Your task to perform on an android device: change the clock style Image 0: 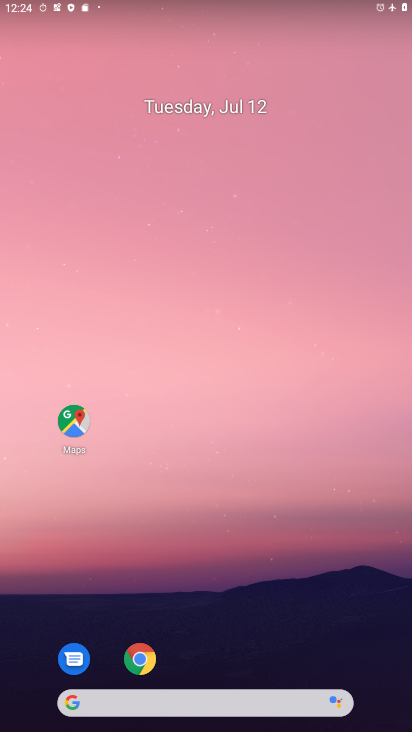
Step 0: click (260, 41)
Your task to perform on an android device: change the clock style Image 1: 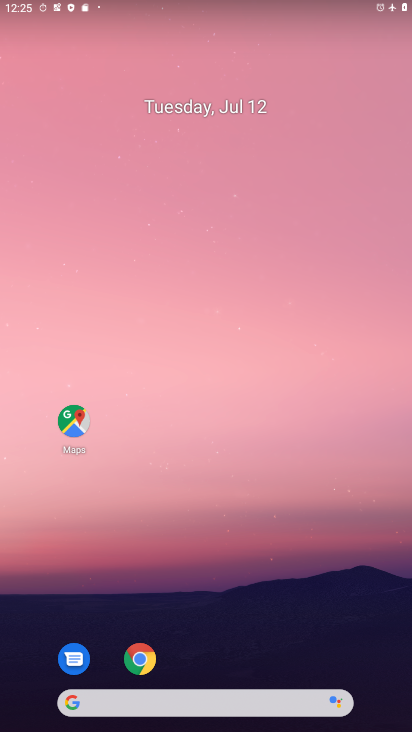
Step 1: drag from (244, 648) to (225, 6)
Your task to perform on an android device: change the clock style Image 2: 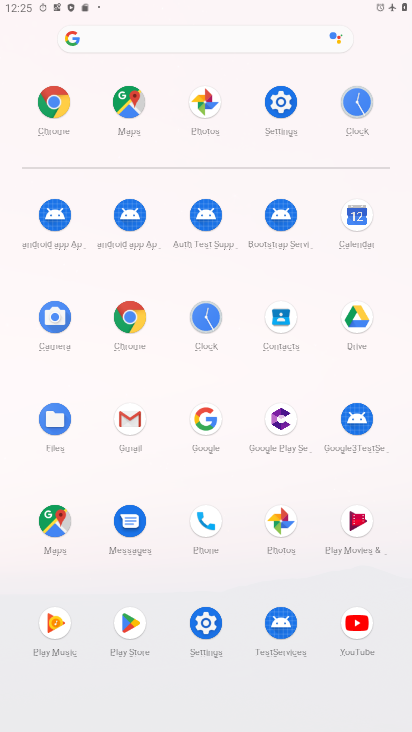
Step 2: click (202, 319)
Your task to perform on an android device: change the clock style Image 3: 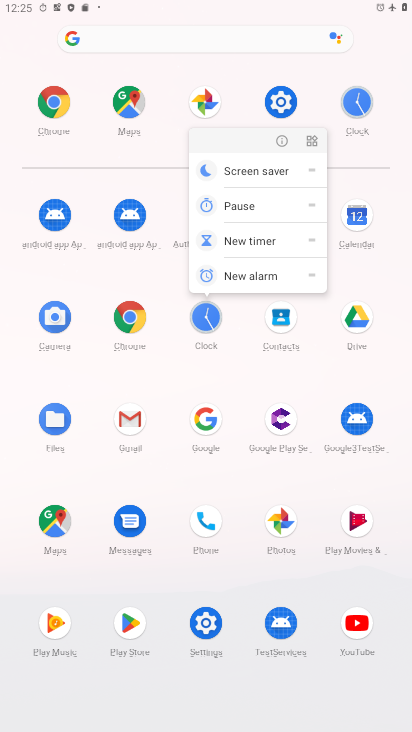
Step 3: click (274, 138)
Your task to perform on an android device: change the clock style Image 4: 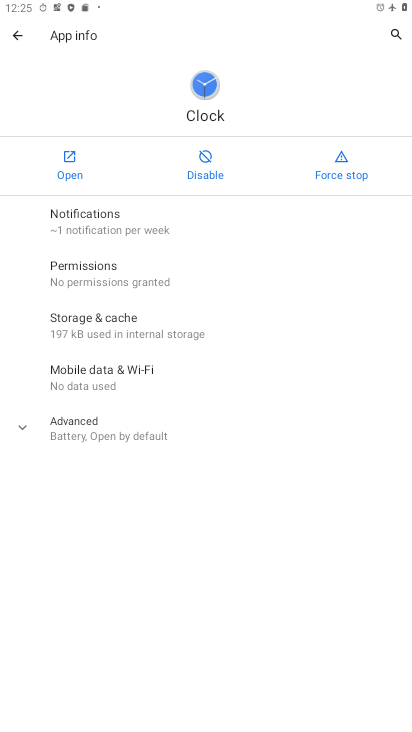
Step 4: click (73, 151)
Your task to perform on an android device: change the clock style Image 5: 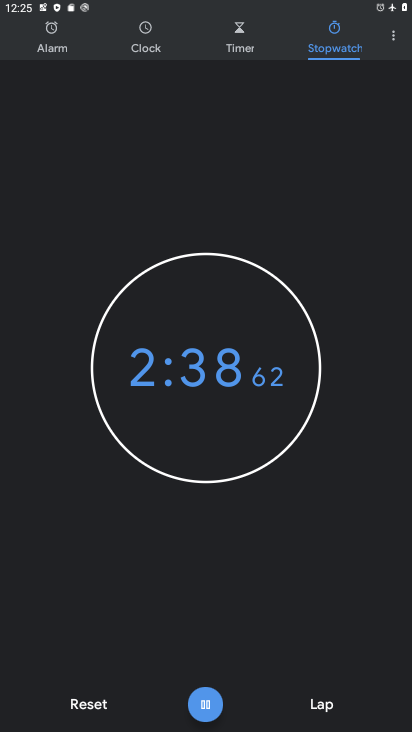
Step 5: drag from (303, 447) to (320, 218)
Your task to perform on an android device: change the clock style Image 6: 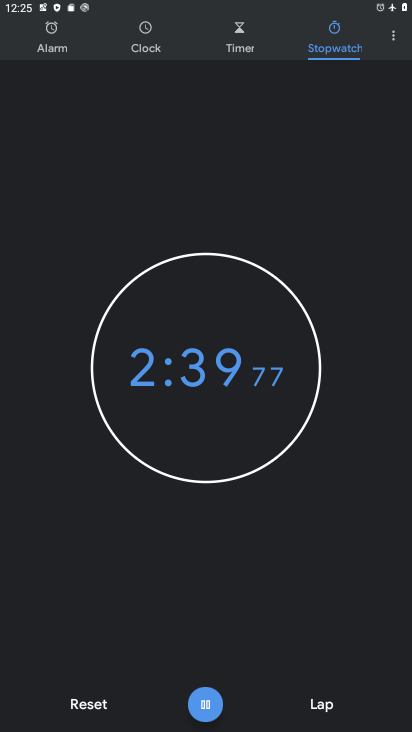
Step 6: click (95, 695)
Your task to perform on an android device: change the clock style Image 7: 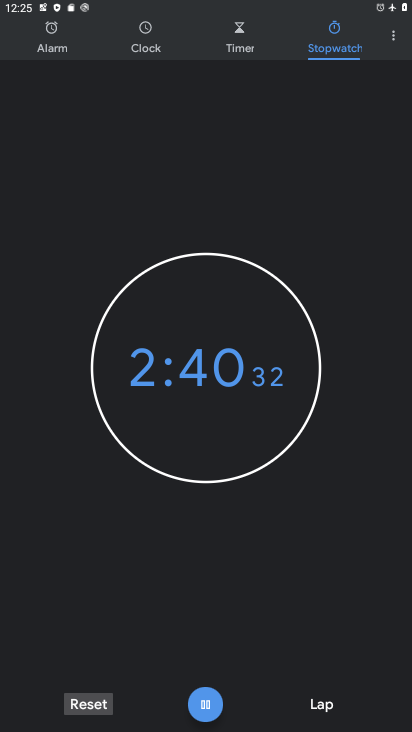
Step 7: click (97, 699)
Your task to perform on an android device: change the clock style Image 8: 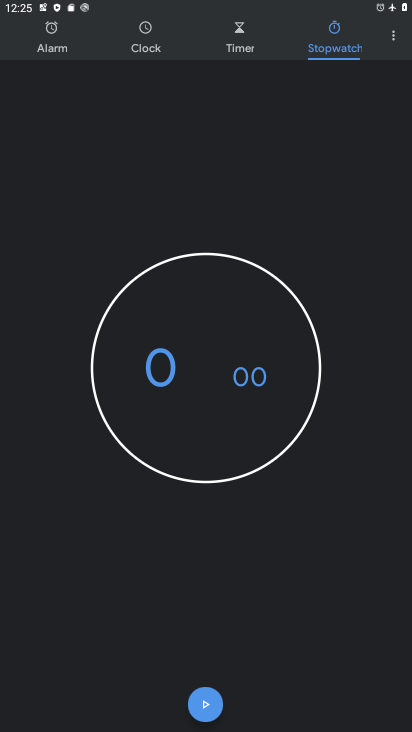
Step 8: click (97, 699)
Your task to perform on an android device: change the clock style Image 9: 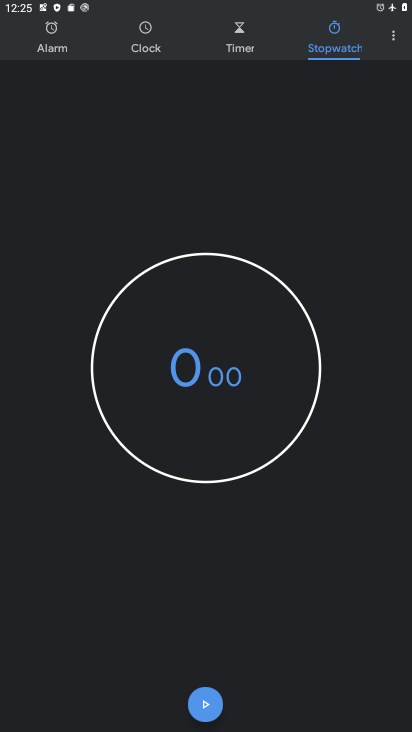
Step 9: click (97, 699)
Your task to perform on an android device: change the clock style Image 10: 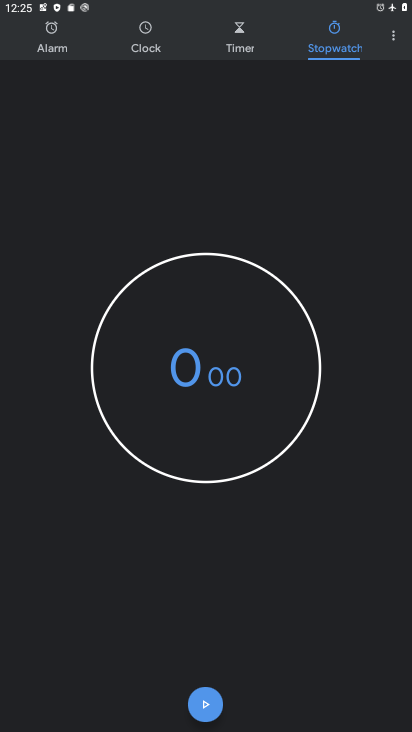
Step 10: click (392, 39)
Your task to perform on an android device: change the clock style Image 11: 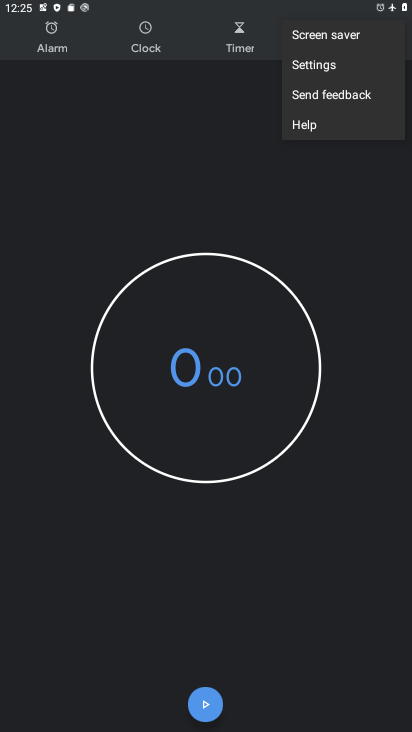
Step 11: click (324, 69)
Your task to perform on an android device: change the clock style Image 12: 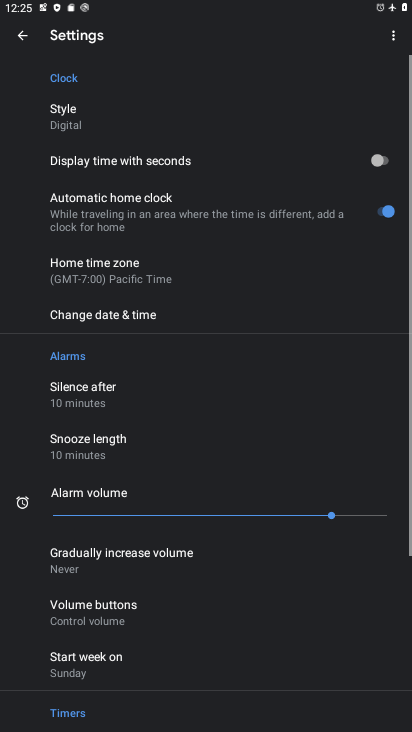
Step 12: drag from (229, 468) to (242, 162)
Your task to perform on an android device: change the clock style Image 13: 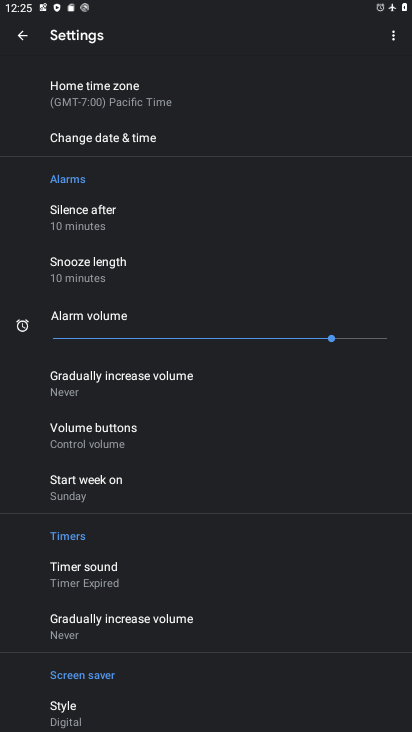
Step 13: drag from (177, 157) to (210, 677)
Your task to perform on an android device: change the clock style Image 14: 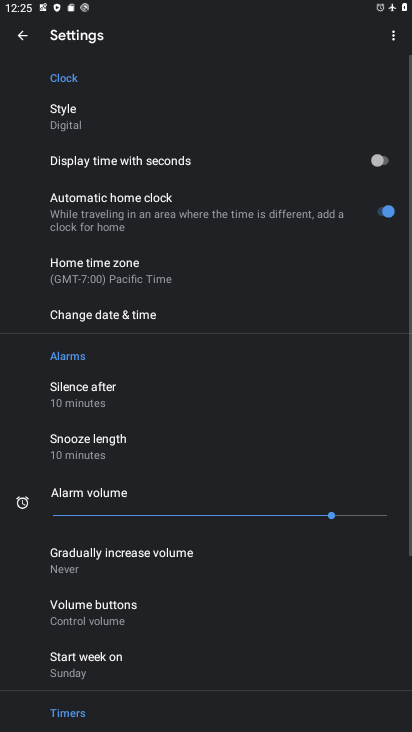
Step 14: click (94, 113)
Your task to perform on an android device: change the clock style Image 15: 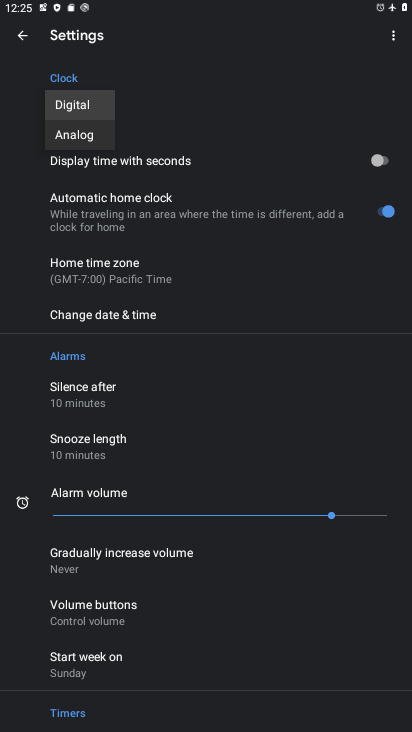
Step 15: click (100, 136)
Your task to perform on an android device: change the clock style Image 16: 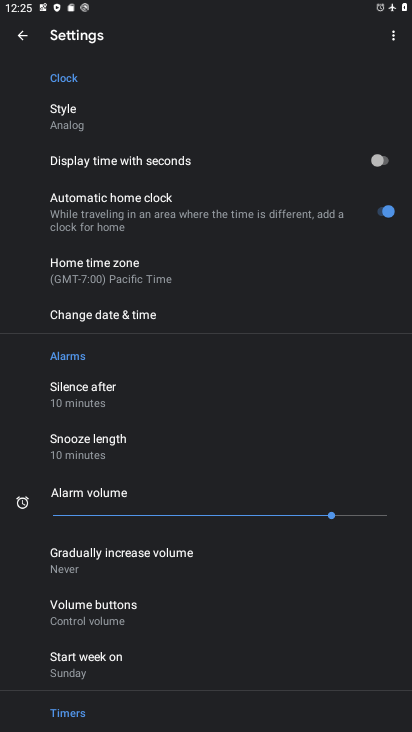
Step 16: task complete